Your task to perform on an android device: Go to calendar. Show me events next week Image 0: 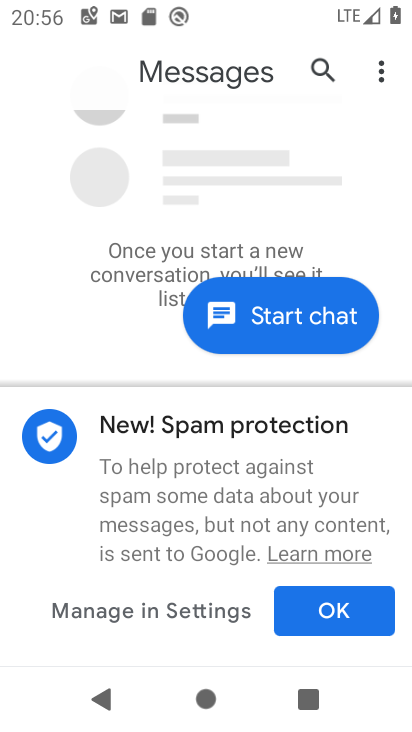
Step 0: press back button
Your task to perform on an android device: Go to calendar. Show me events next week Image 1: 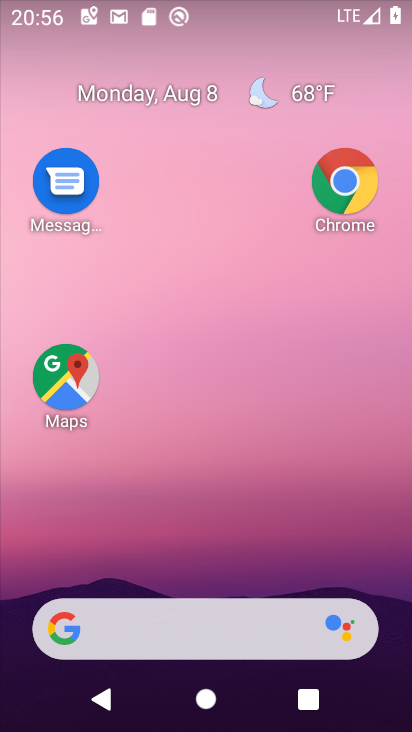
Step 1: drag from (216, 589) to (185, 2)
Your task to perform on an android device: Go to calendar. Show me events next week Image 2: 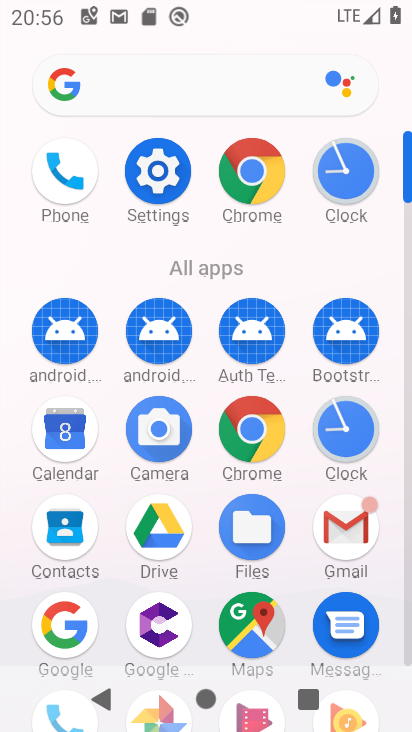
Step 2: click (76, 429)
Your task to perform on an android device: Go to calendar. Show me events next week Image 3: 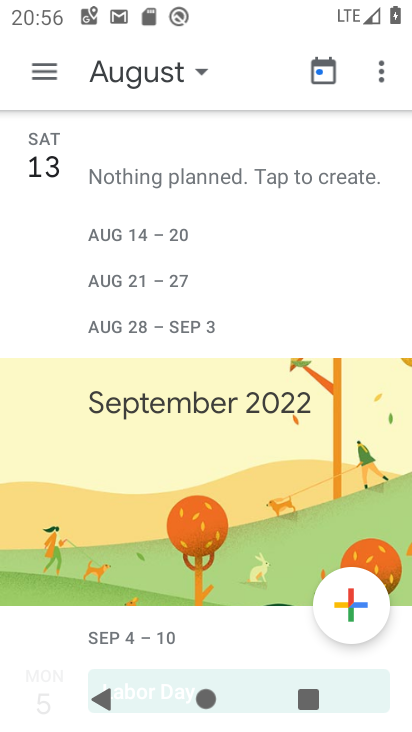
Step 3: click (316, 87)
Your task to perform on an android device: Go to calendar. Show me events next week Image 4: 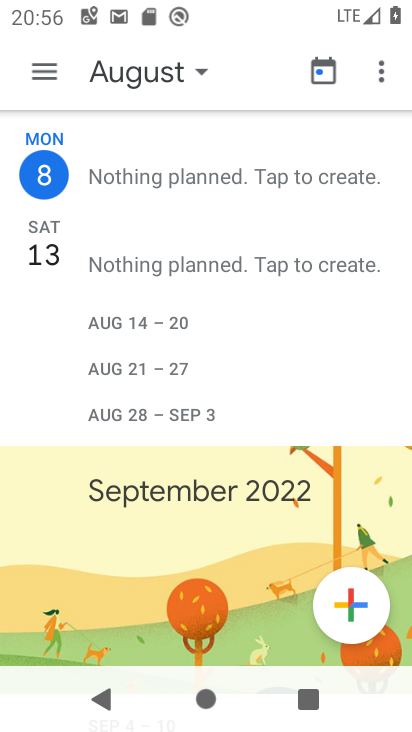
Step 4: click (316, 74)
Your task to perform on an android device: Go to calendar. Show me events next week Image 5: 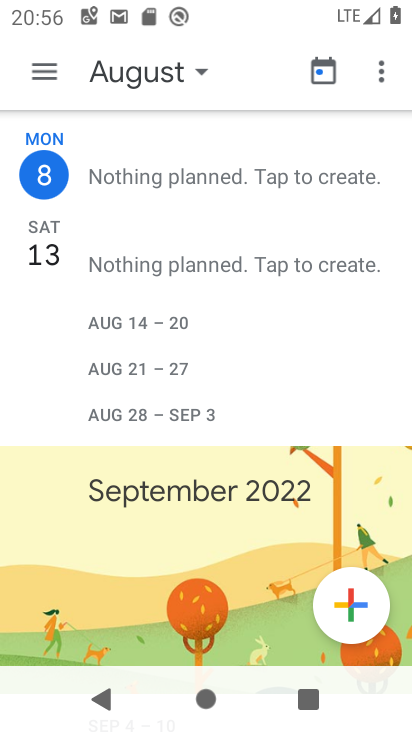
Step 5: click (37, 83)
Your task to perform on an android device: Go to calendar. Show me events next week Image 6: 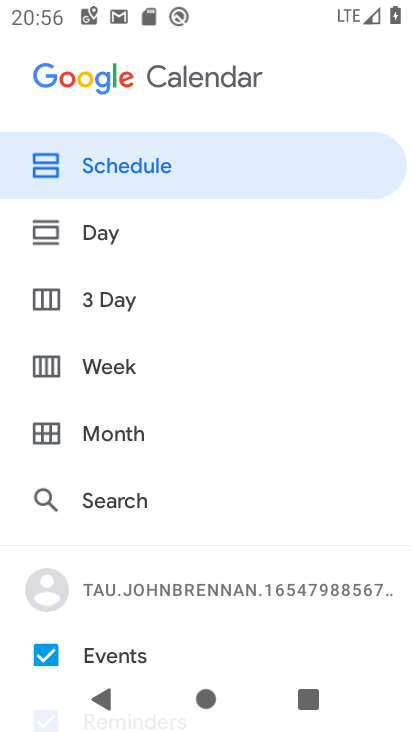
Step 6: click (117, 383)
Your task to perform on an android device: Go to calendar. Show me events next week Image 7: 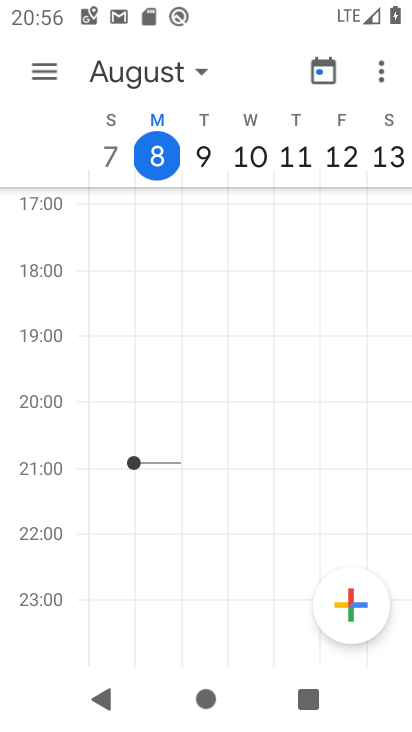
Step 7: task complete